Your task to perform on an android device: turn on airplane mode Image 0: 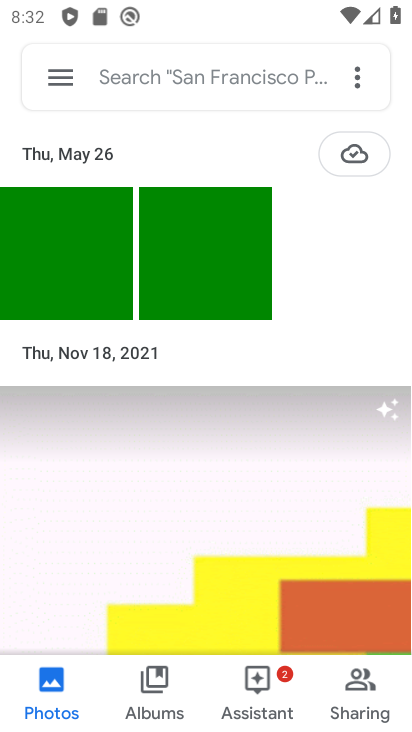
Step 0: press back button
Your task to perform on an android device: turn on airplane mode Image 1: 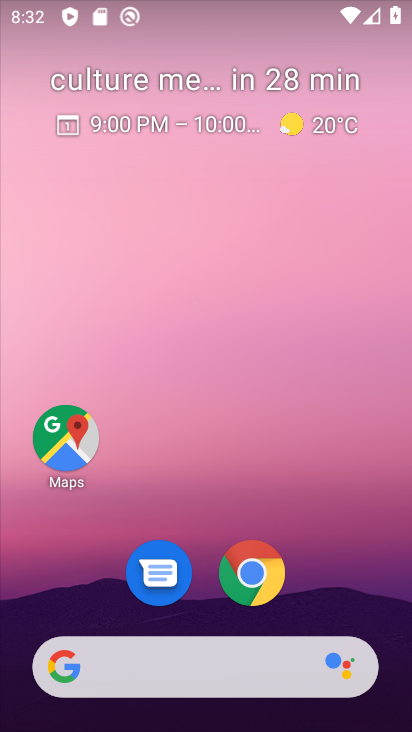
Step 1: drag from (376, 9) to (291, 442)
Your task to perform on an android device: turn on airplane mode Image 2: 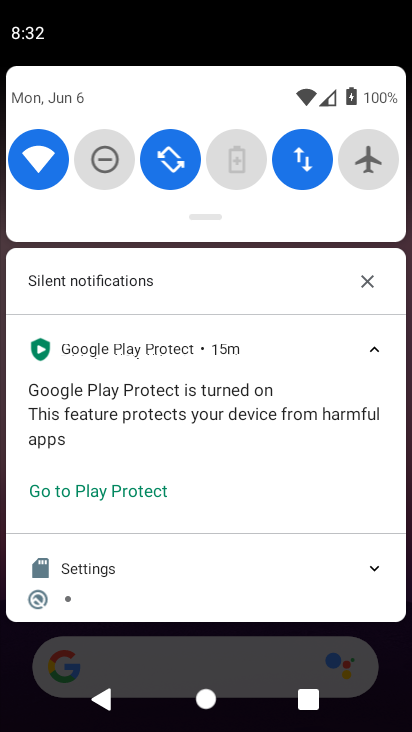
Step 2: click (364, 163)
Your task to perform on an android device: turn on airplane mode Image 3: 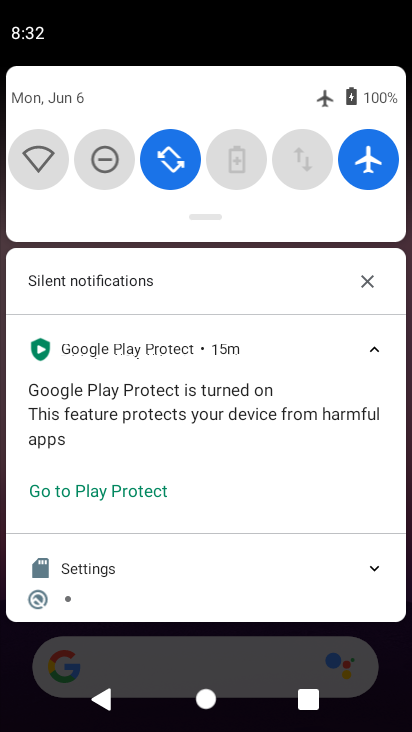
Step 3: task complete